Your task to perform on an android device: open the mobile data screen to see how much data has been used Image 0: 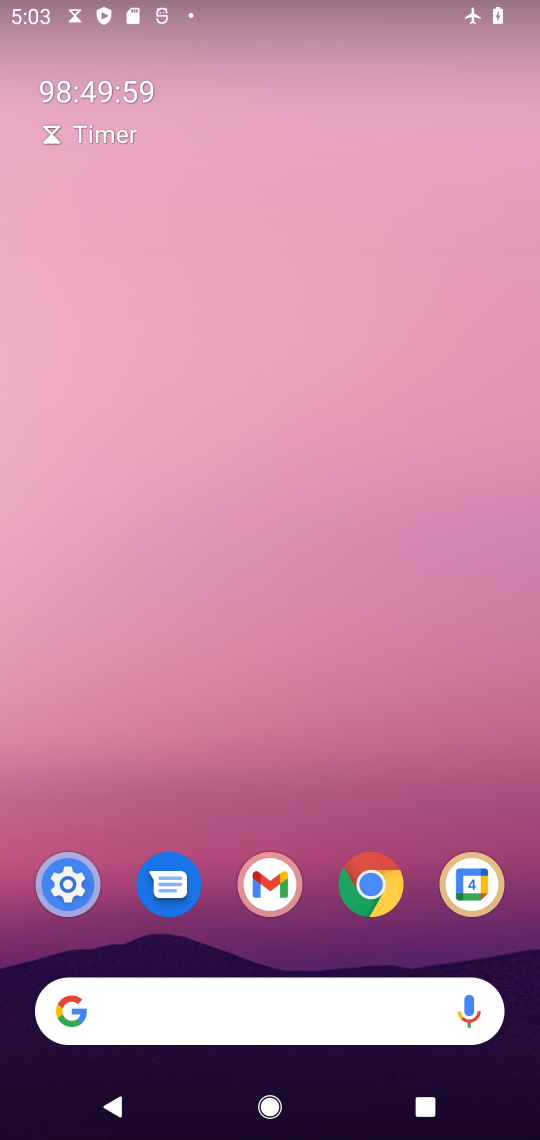
Step 0: drag from (206, 947) to (148, 382)
Your task to perform on an android device: open the mobile data screen to see how much data has been used Image 1: 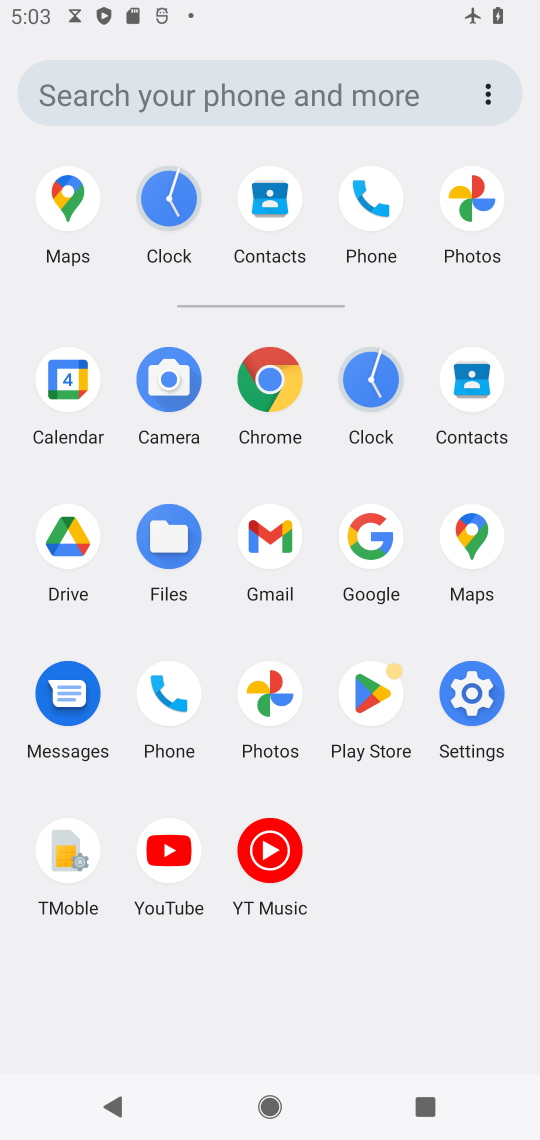
Step 1: click (476, 681)
Your task to perform on an android device: open the mobile data screen to see how much data has been used Image 2: 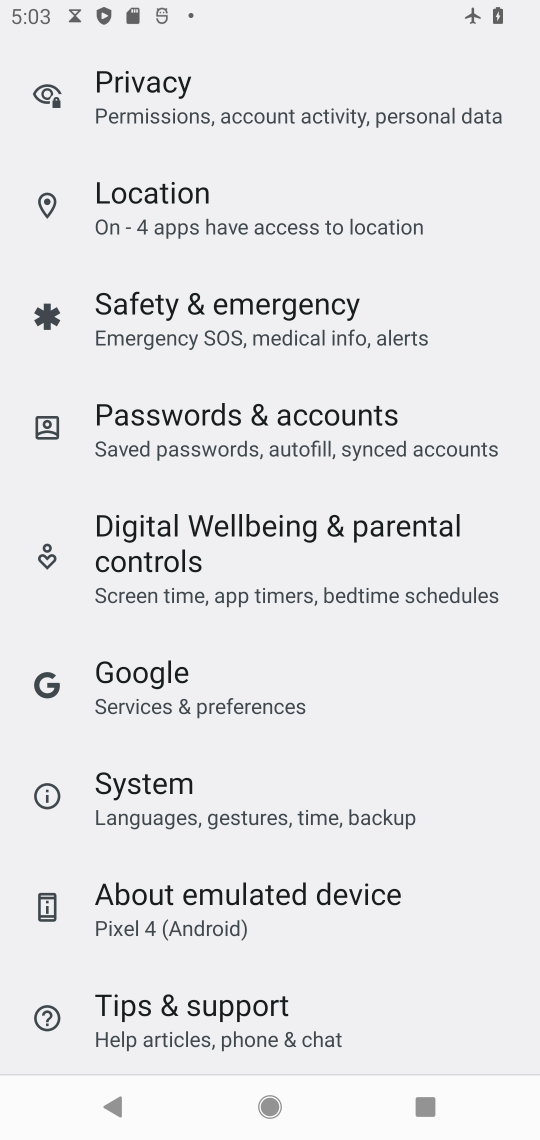
Step 2: drag from (195, 308) to (181, 697)
Your task to perform on an android device: open the mobile data screen to see how much data has been used Image 3: 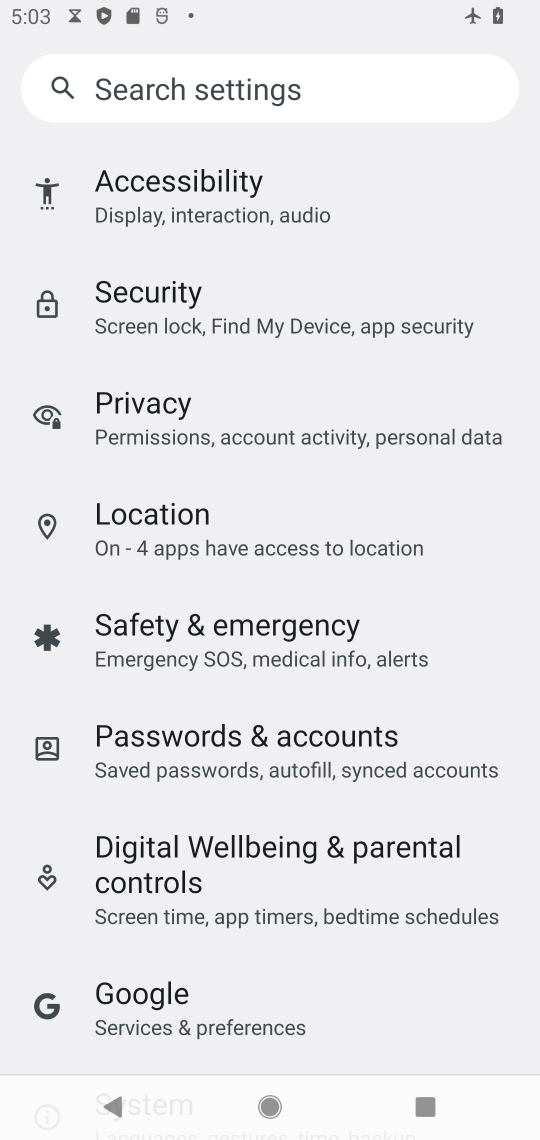
Step 3: drag from (153, 148) to (192, 988)
Your task to perform on an android device: open the mobile data screen to see how much data has been used Image 4: 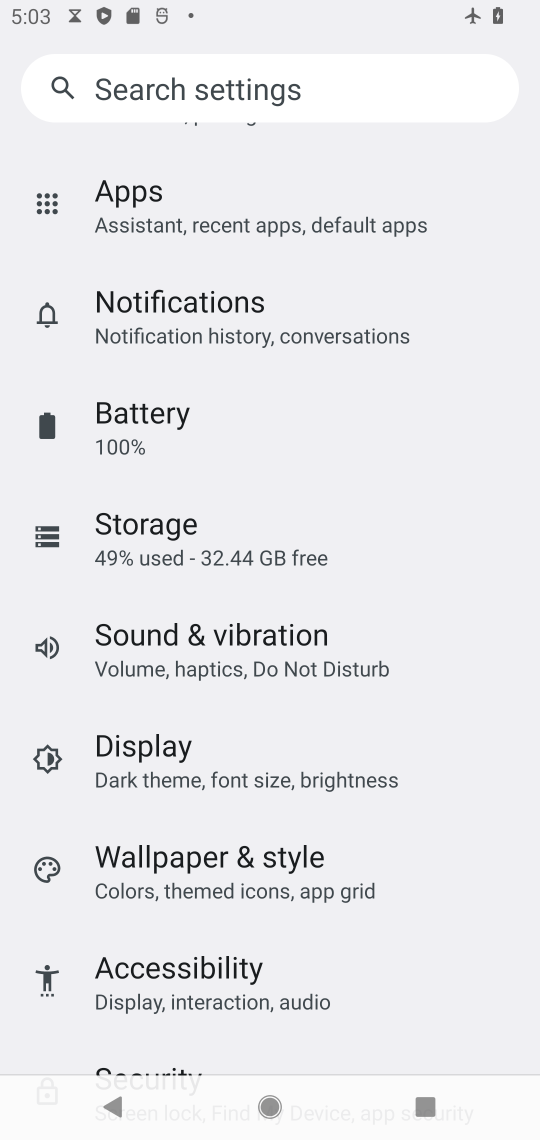
Step 4: drag from (186, 242) to (199, 798)
Your task to perform on an android device: open the mobile data screen to see how much data has been used Image 5: 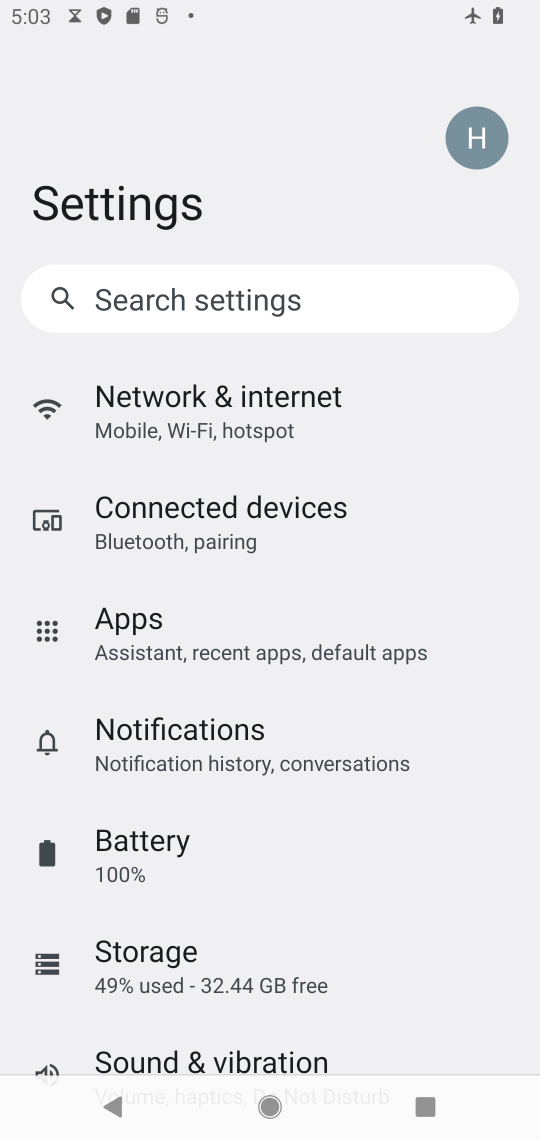
Step 5: click (204, 392)
Your task to perform on an android device: open the mobile data screen to see how much data has been used Image 6: 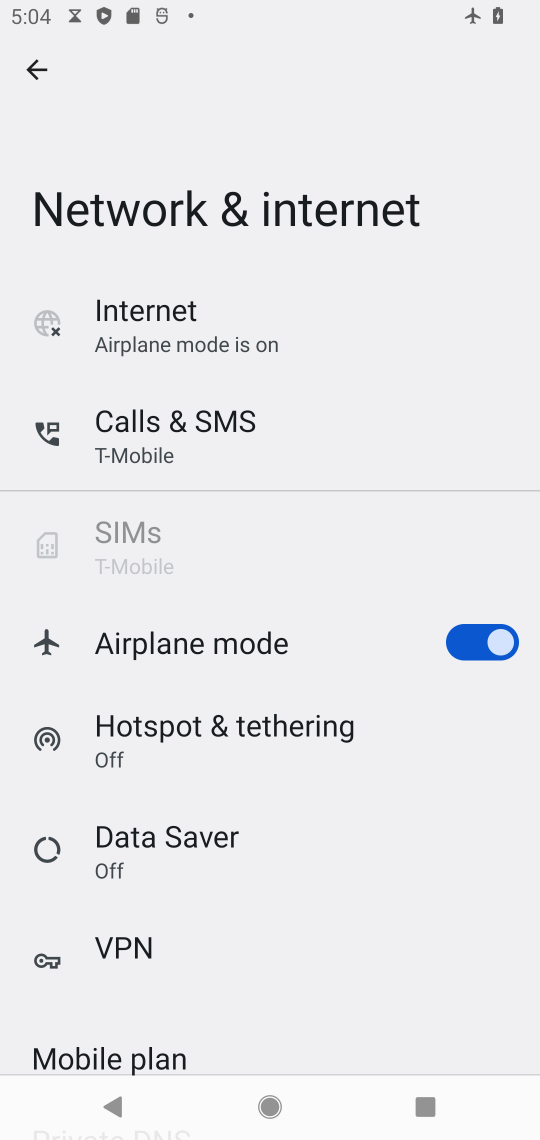
Step 6: click (152, 522)
Your task to perform on an android device: open the mobile data screen to see how much data has been used Image 7: 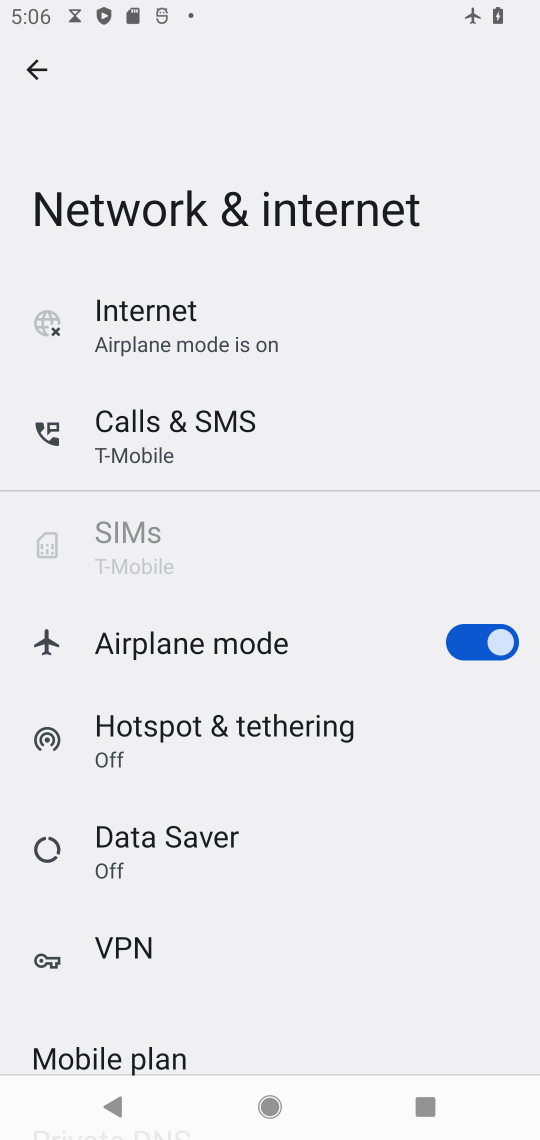
Step 7: task complete